Your task to perform on an android device: toggle javascript in the chrome app Image 0: 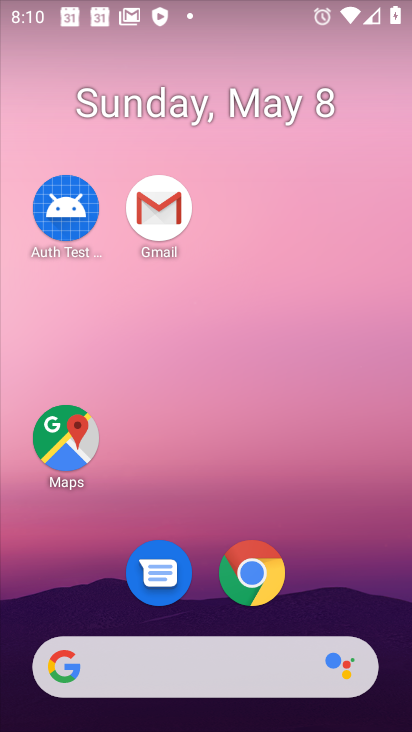
Step 0: drag from (347, 617) to (178, 180)
Your task to perform on an android device: toggle javascript in the chrome app Image 1: 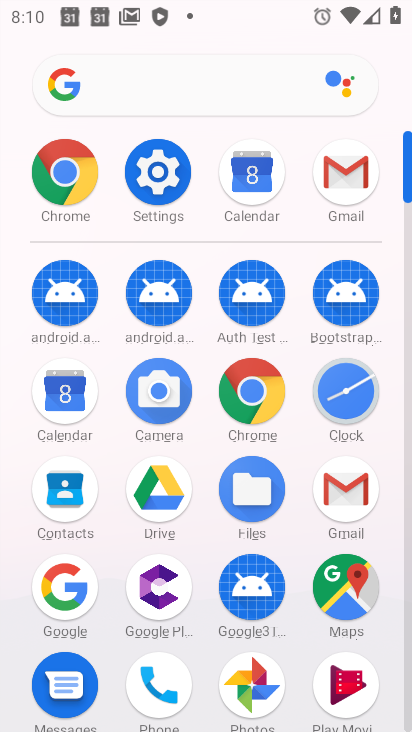
Step 1: click (53, 161)
Your task to perform on an android device: toggle javascript in the chrome app Image 2: 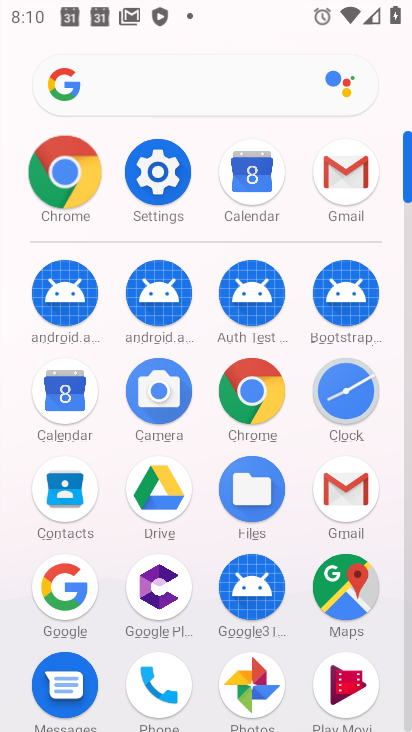
Step 2: click (53, 161)
Your task to perform on an android device: toggle javascript in the chrome app Image 3: 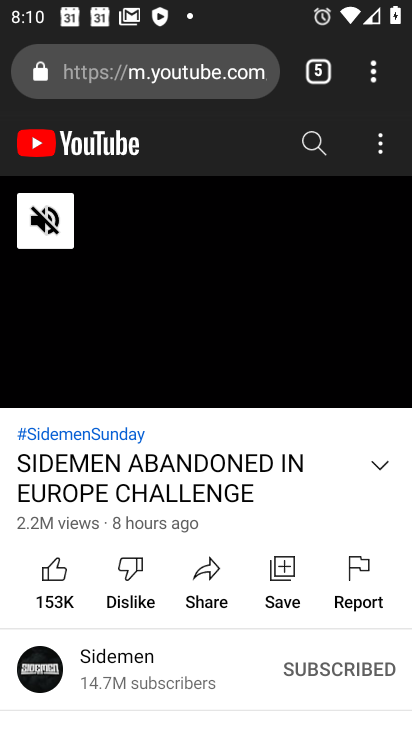
Step 3: drag from (373, 70) to (129, 563)
Your task to perform on an android device: toggle javascript in the chrome app Image 4: 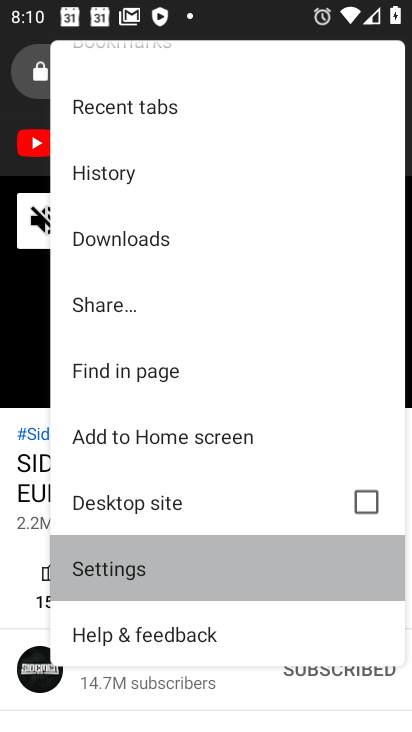
Step 4: click (129, 563)
Your task to perform on an android device: toggle javascript in the chrome app Image 5: 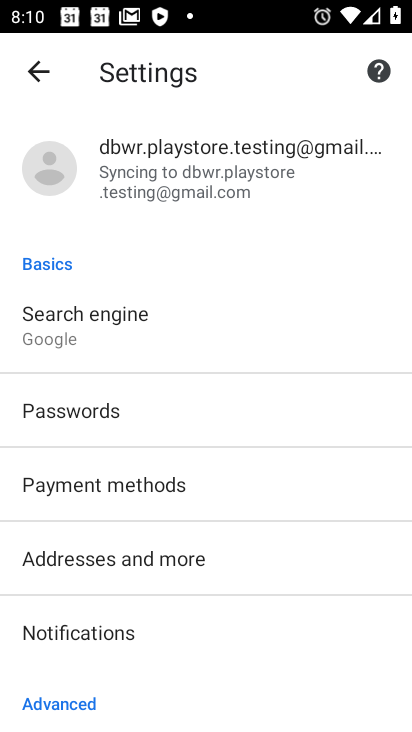
Step 5: drag from (110, 429) to (127, 88)
Your task to perform on an android device: toggle javascript in the chrome app Image 6: 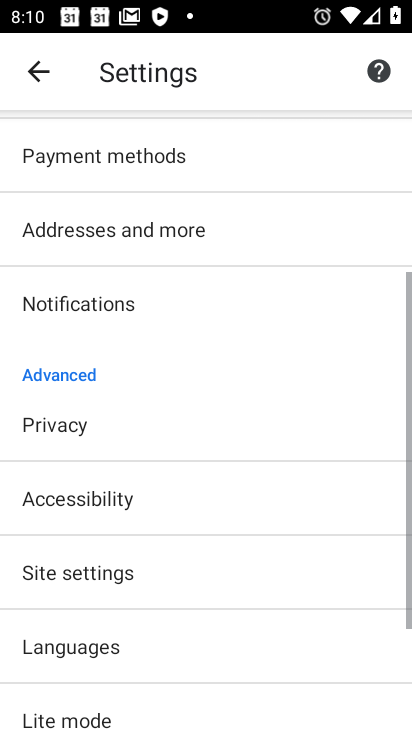
Step 6: drag from (124, 477) to (79, 198)
Your task to perform on an android device: toggle javascript in the chrome app Image 7: 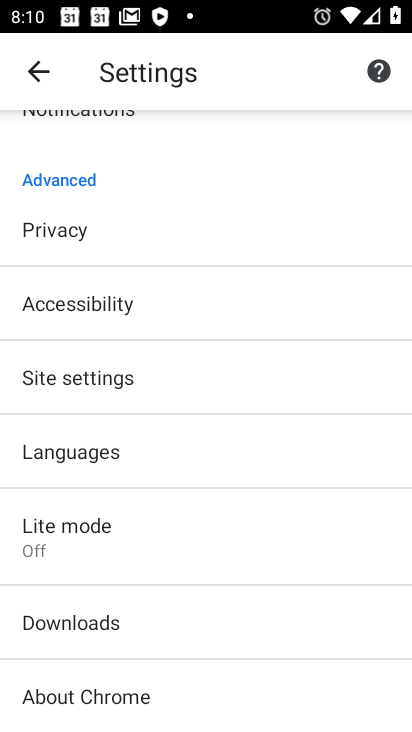
Step 7: click (74, 377)
Your task to perform on an android device: toggle javascript in the chrome app Image 8: 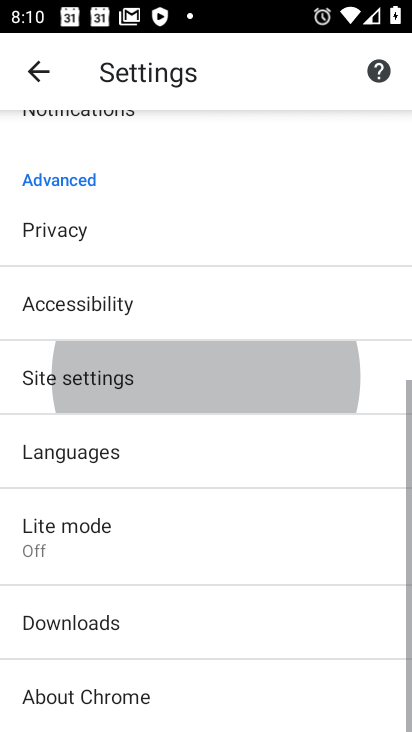
Step 8: click (72, 377)
Your task to perform on an android device: toggle javascript in the chrome app Image 9: 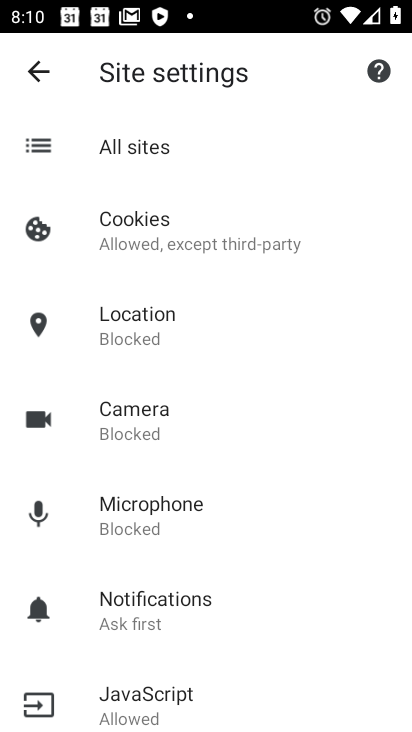
Step 9: drag from (174, 649) to (124, 309)
Your task to perform on an android device: toggle javascript in the chrome app Image 10: 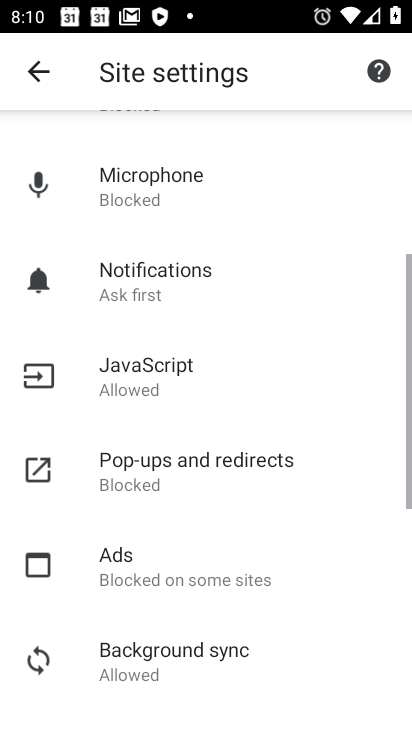
Step 10: click (132, 375)
Your task to perform on an android device: toggle javascript in the chrome app Image 11: 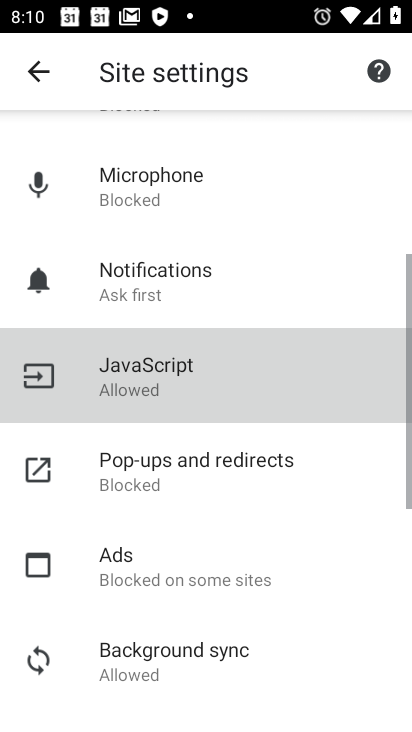
Step 11: click (129, 376)
Your task to perform on an android device: toggle javascript in the chrome app Image 12: 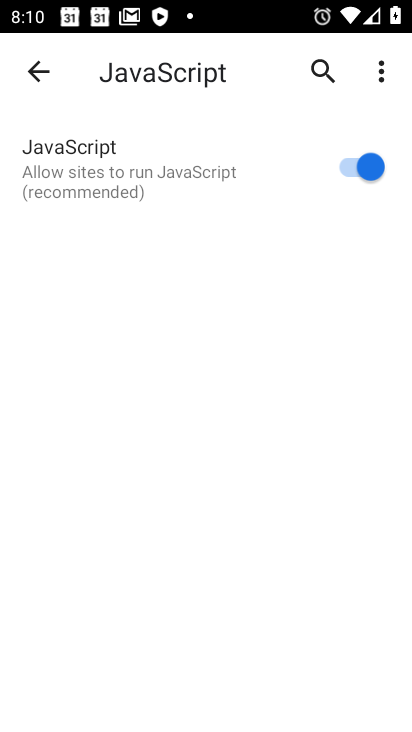
Step 12: click (371, 157)
Your task to perform on an android device: toggle javascript in the chrome app Image 13: 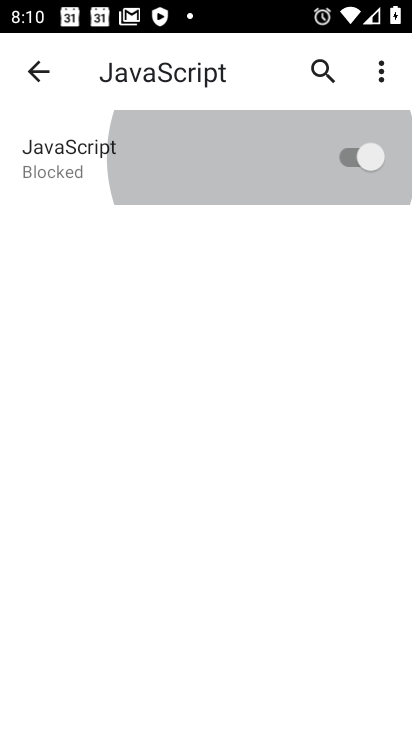
Step 13: click (371, 166)
Your task to perform on an android device: toggle javascript in the chrome app Image 14: 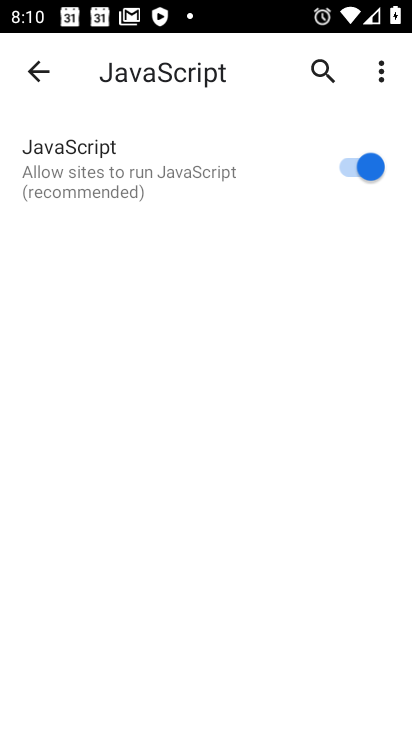
Step 14: task complete